Your task to perform on an android device: choose inbox layout in the gmail app Image 0: 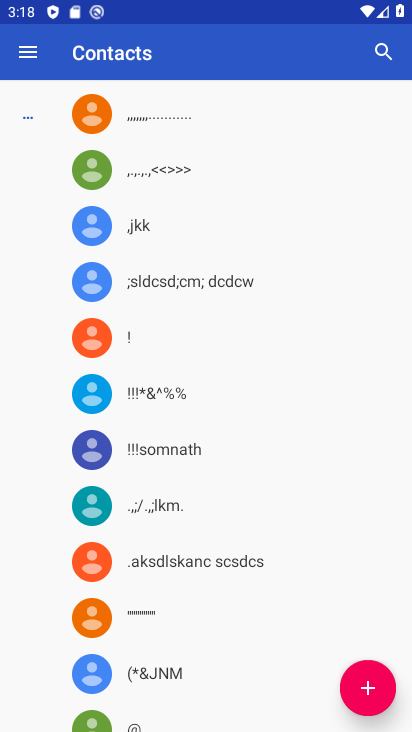
Step 0: press home button
Your task to perform on an android device: choose inbox layout in the gmail app Image 1: 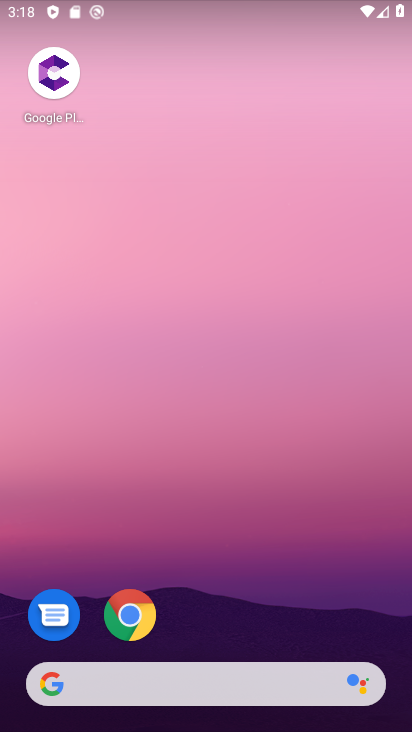
Step 1: drag from (222, 590) to (185, 199)
Your task to perform on an android device: choose inbox layout in the gmail app Image 2: 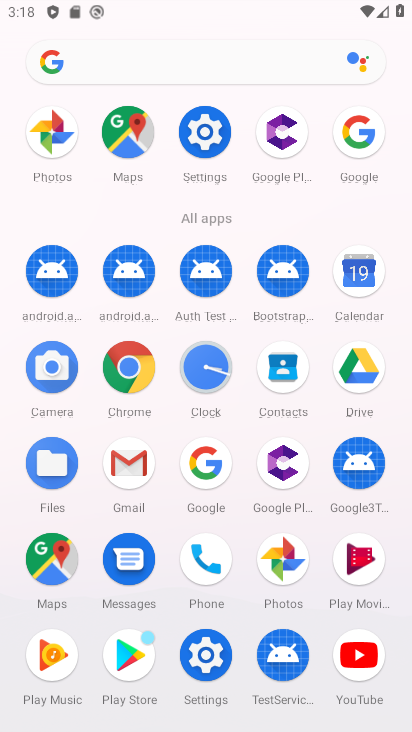
Step 2: click (141, 467)
Your task to perform on an android device: choose inbox layout in the gmail app Image 3: 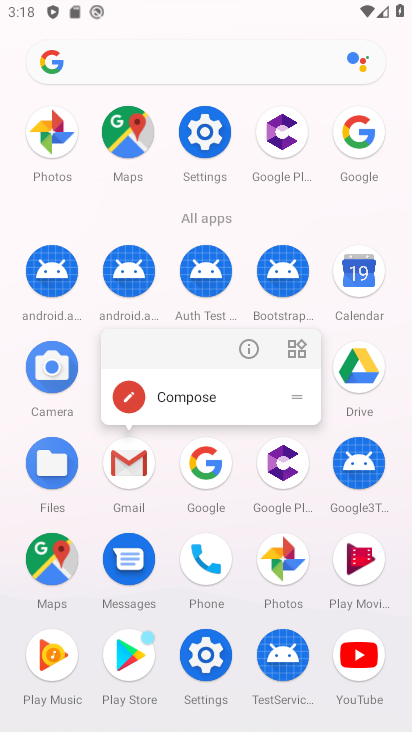
Step 3: click (141, 467)
Your task to perform on an android device: choose inbox layout in the gmail app Image 4: 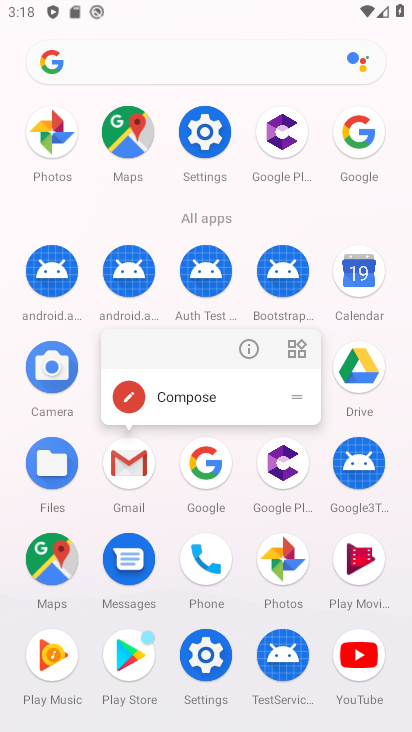
Step 4: click (141, 467)
Your task to perform on an android device: choose inbox layout in the gmail app Image 5: 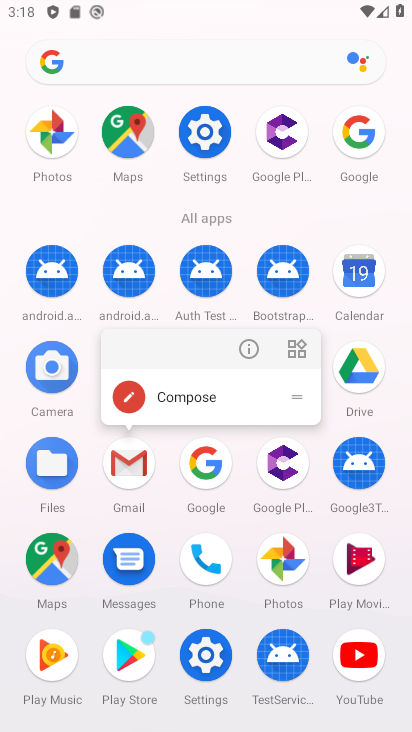
Step 5: click (141, 467)
Your task to perform on an android device: choose inbox layout in the gmail app Image 6: 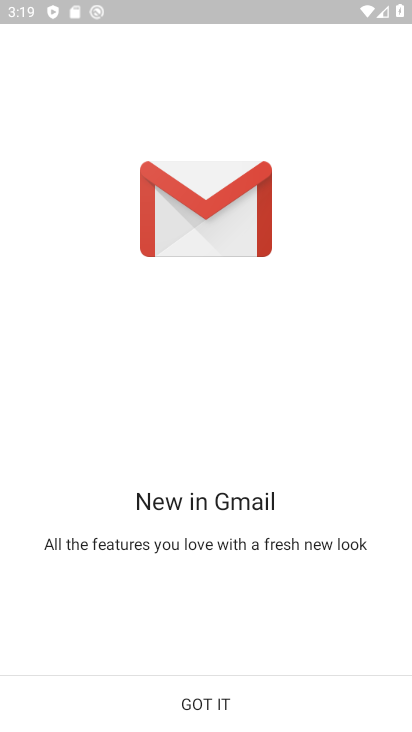
Step 6: click (240, 696)
Your task to perform on an android device: choose inbox layout in the gmail app Image 7: 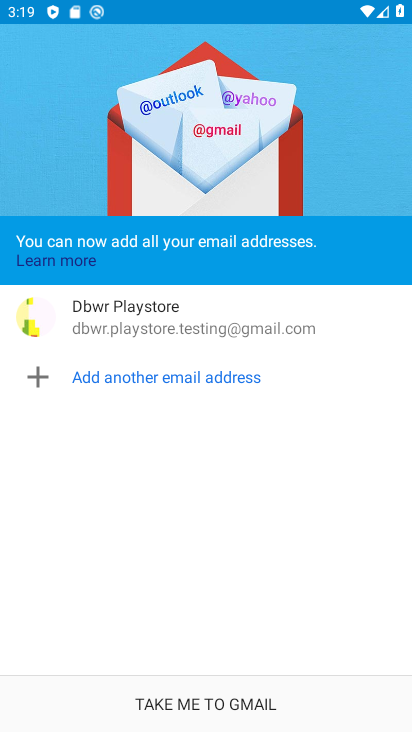
Step 7: click (242, 694)
Your task to perform on an android device: choose inbox layout in the gmail app Image 8: 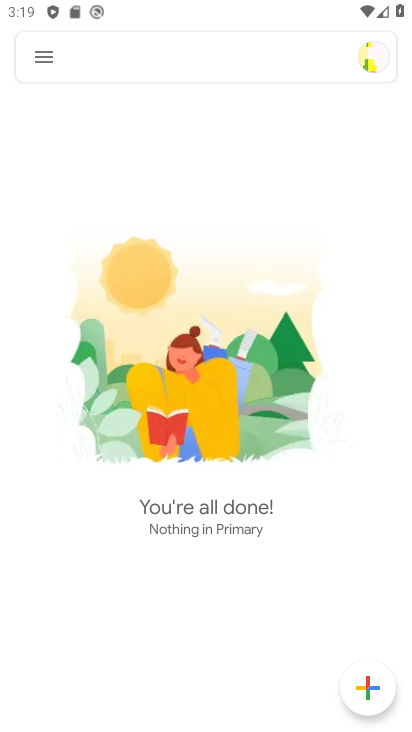
Step 8: click (48, 61)
Your task to perform on an android device: choose inbox layout in the gmail app Image 9: 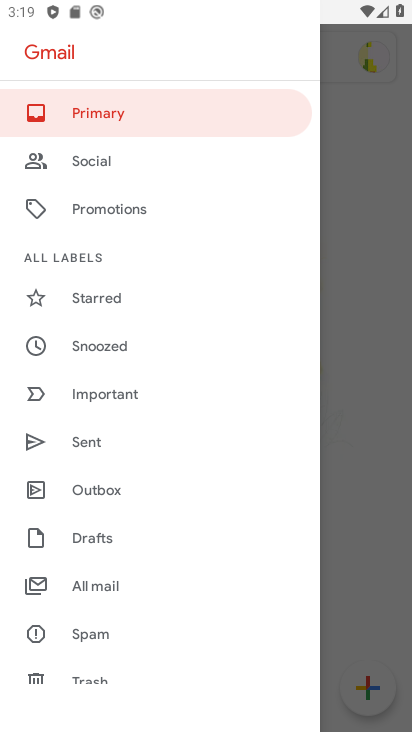
Step 9: drag from (126, 644) to (209, 254)
Your task to perform on an android device: choose inbox layout in the gmail app Image 10: 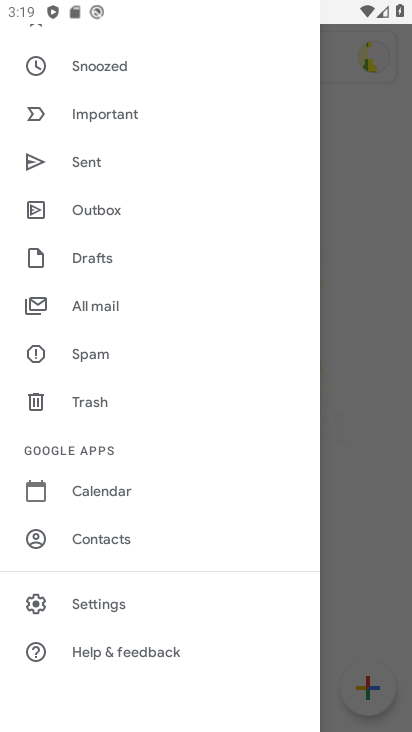
Step 10: click (135, 598)
Your task to perform on an android device: choose inbox layout in the gmail app Image 11: 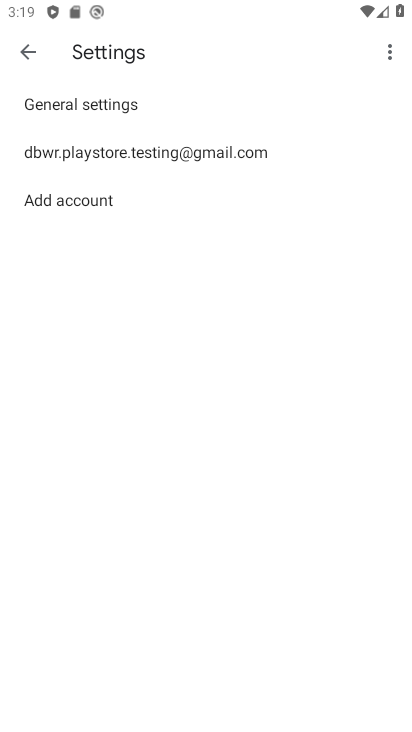
Step 11: click (172, 146)
Your task to perform on an android device: choose inbox layout in the gmail app Image 12: 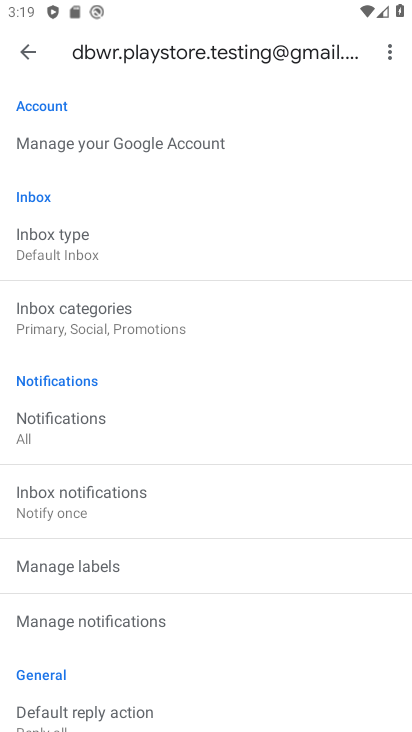
Step 12: click (141, 250)
Your task to perform on an android device: choose inbox layout in the gmail app Image 13: 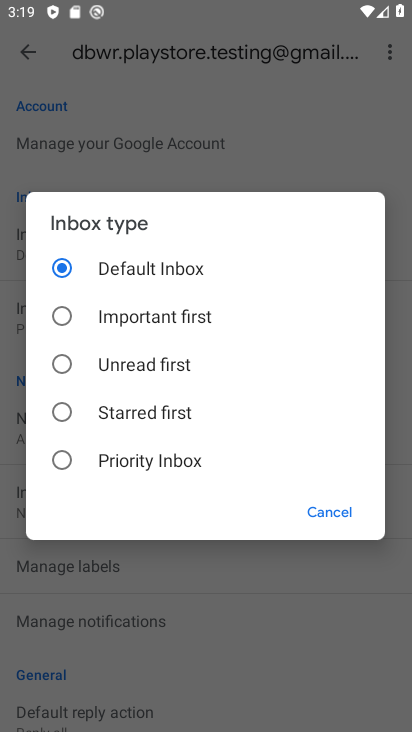
Step 13: click (123, 461)
Your task to perform on an android device: choose inbox layout in the gmail app Image 14: 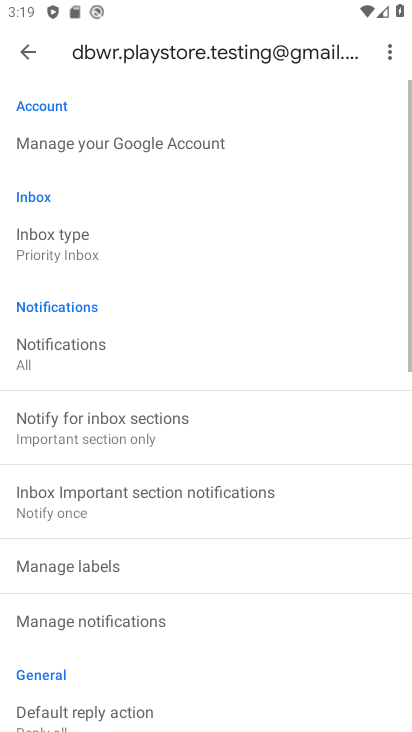
Step 14: task complete